Your task to perform on an android device: Go to calendar. Show me events next week Image 0: 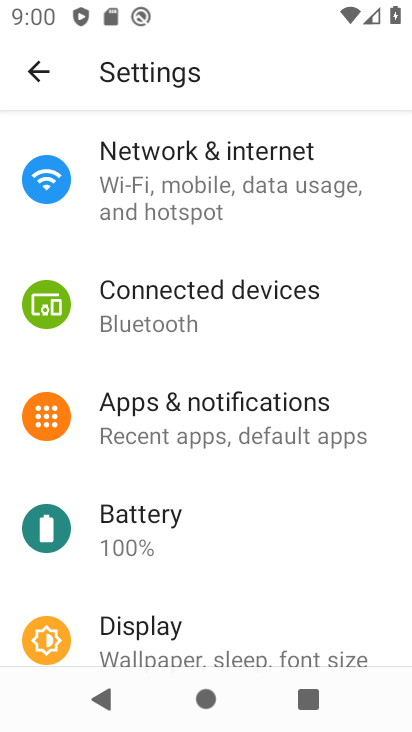
Step 0: press home button
Your task to perform on an android device: Go to calendar. Show me events next week Image 1: 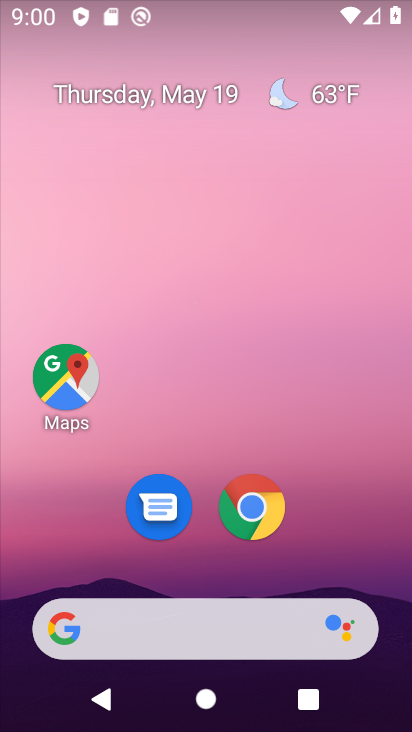
Step 1: drag from (371, 563) to (279, 3)
Your task to perform on an android device: Go to calendar. Show me events next week Image 2: 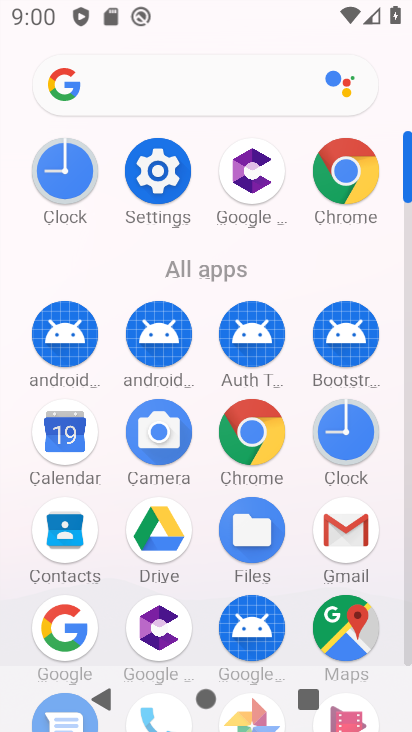
Step 2: click (75, 451)
Your task to perform on an android device: Go to calendar. Show me events next week Image 3: 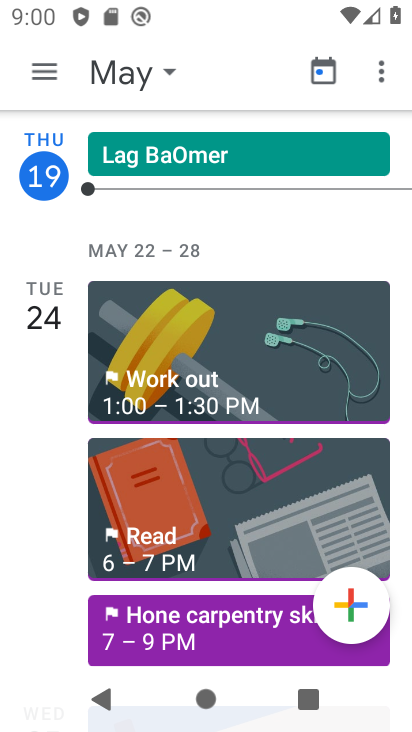
Step 3: click (143, 78)
Your task to perform on an android device: Go to calendar. Show me events next week Image 4: 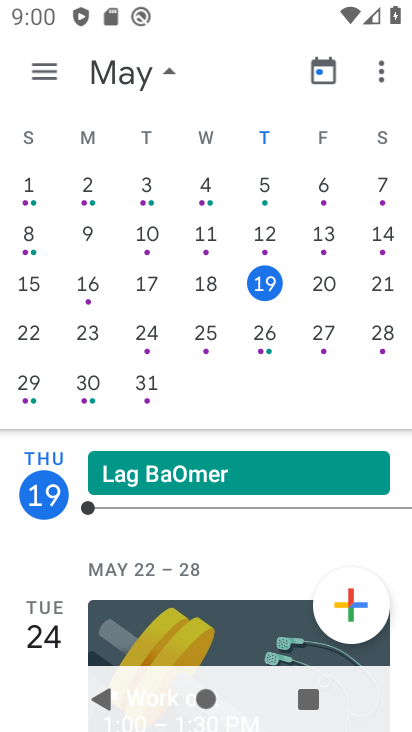
Step 4: click (254, 348)
Your task to perform on an android device: Go to calendar. Show me events next week Image 5: 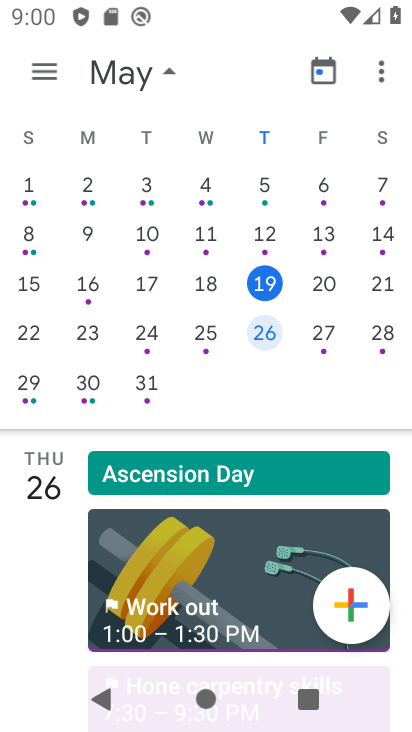
Step 5: click (40, 69)
Your task to perform on an android device: Go to calendar. Show me events next week Image 6: 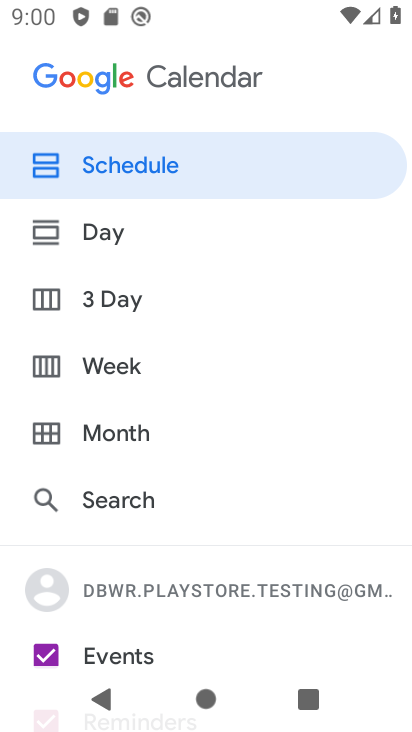
Step 6: click (126, 364)
Your task to perform on an android device: Go to calendar. Show me events next week Image 7: 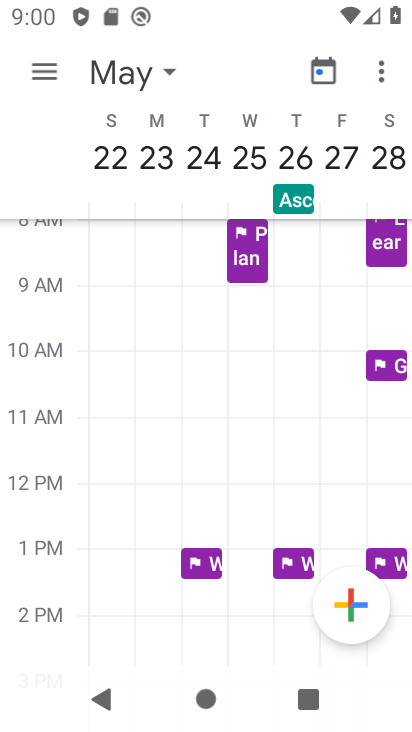
Step 7: task complete